Your task to perform on an android device: turn off sleep mode Image 0: 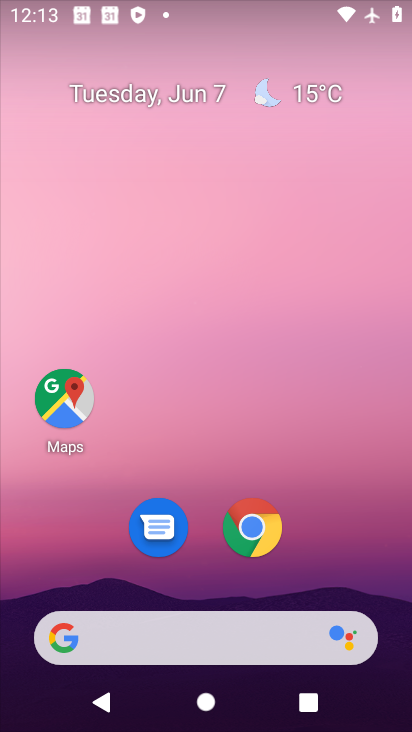
Step 0: drag from (263, 674) to (60, 98)
Your task to perform on an android device: turn off sleep mode Image 1: 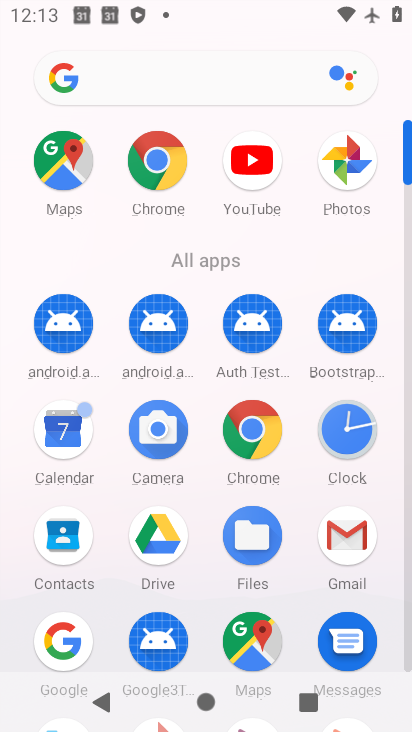
Step 1: drag from (189, 416) to (163, 267)
Your task to perform on an android device: turn off sleep mode Image 2: 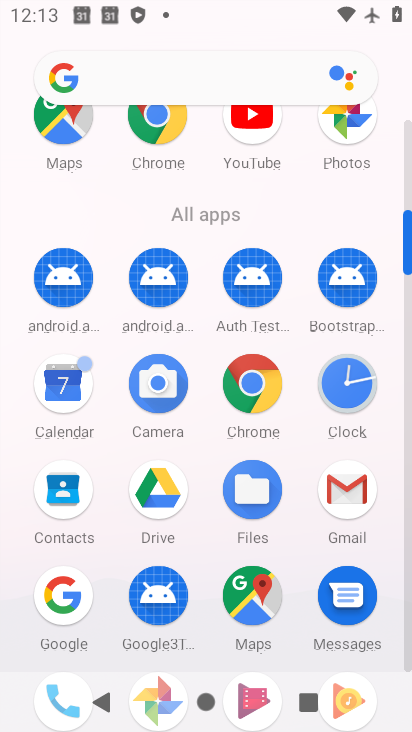
Step 2: drag from (237, 525) to (212, 294)
Your task to perform on an android device: turn off sleep mode Image 3: 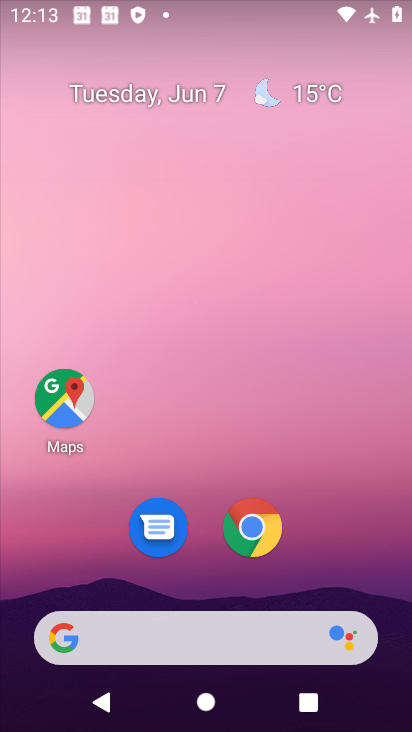
Step 3: click (165, 120)
Your task to perform on an android device: turn off sleep mode Image 4: 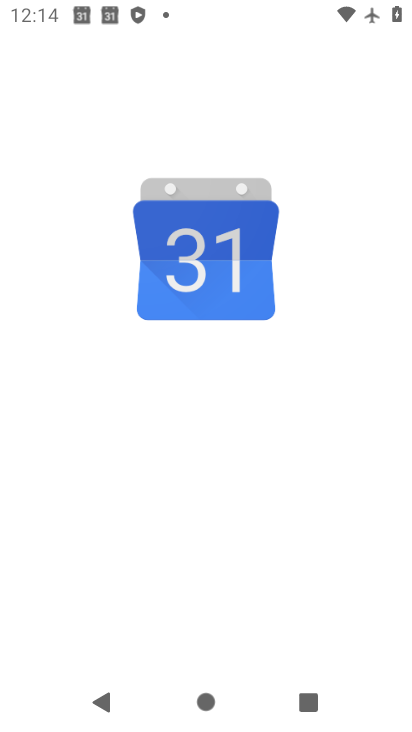
Step 4: click (236, 23)
Your task to perform on an android device: turn off sleep mode Image 5: 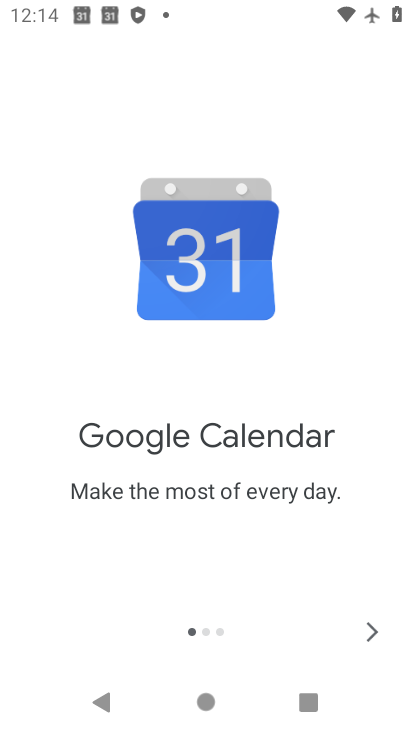
Step 5: press back button
Your task to perform on an android device: turn off sleep mode Image 6: 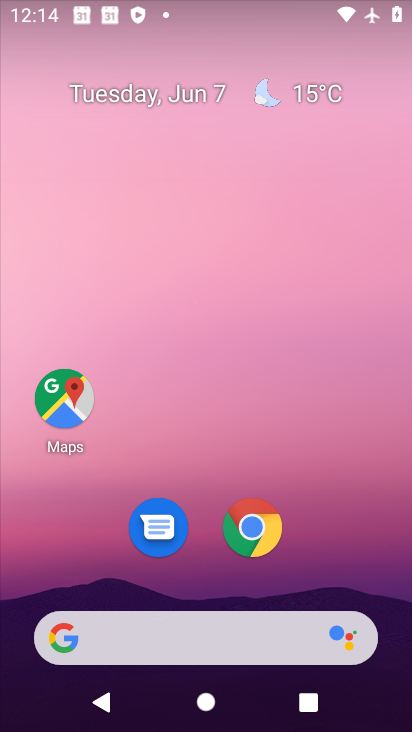
Step 6: drag from (269, 481) to (247, 74)
Your task to perform on an android device: turn off sleep mode Image 7: 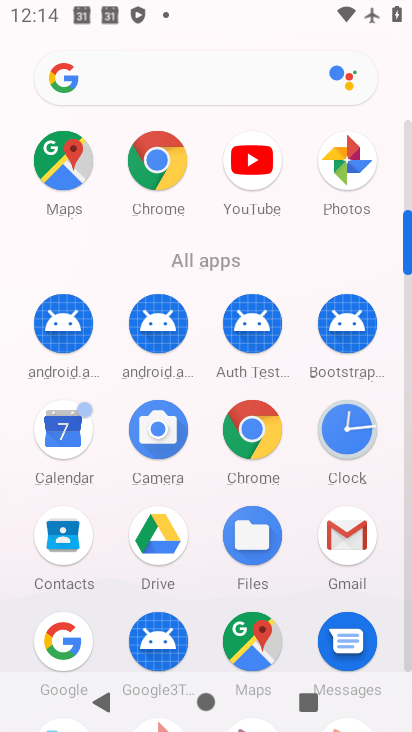
Step 7: drag from (229, 555) to (211, 207)
Your task to perform on an android device: turn off sleep mode Image 8: 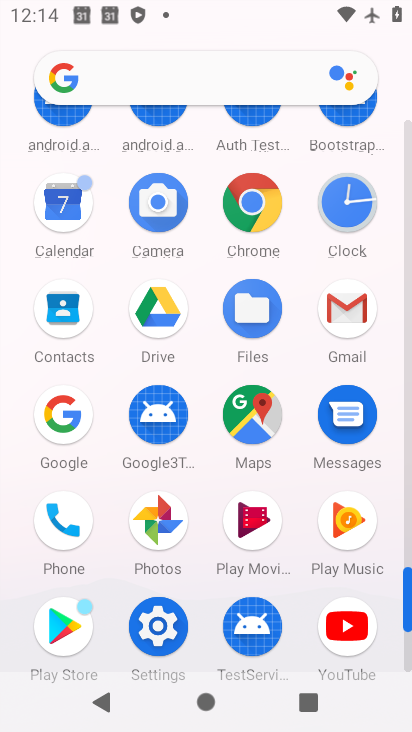
Step 8: drag from (234, 570) to (228, 171)
Your task to perform on an android device: turn off sleep mode Image 9: 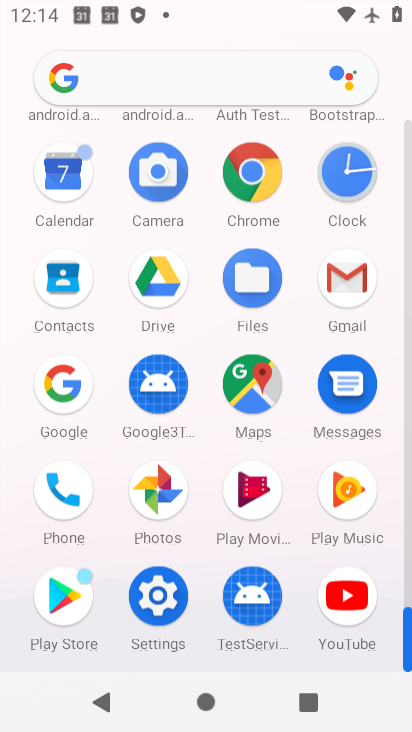
Step 9: drag from (227, 454) to (219, 205)
Your task to perform on an android device: turn off sleep mode Image 10: 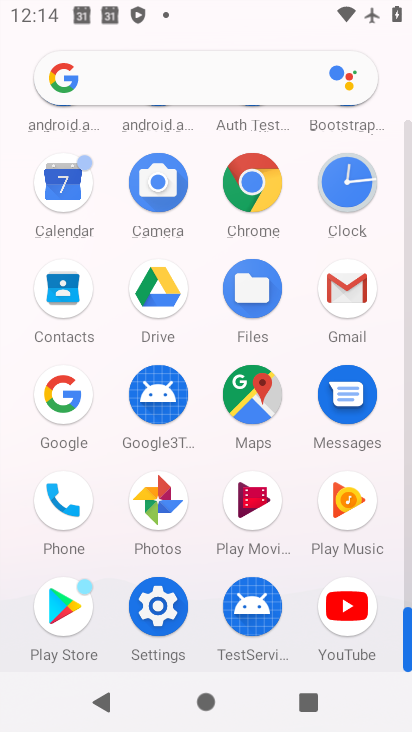
Step 10: click (153, 618)
Your task to perform on an android device: turn off sleep mode Image 11: 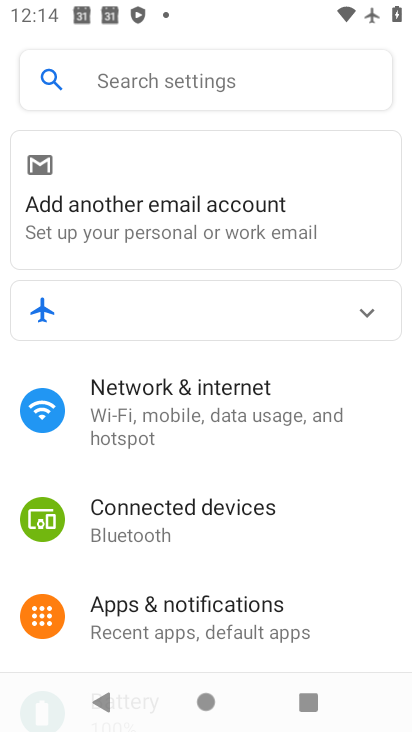
Step 11: drag from (211, 578) to (136, 303)
Your task to perform on an android device: turn off sleep mode Image 12: 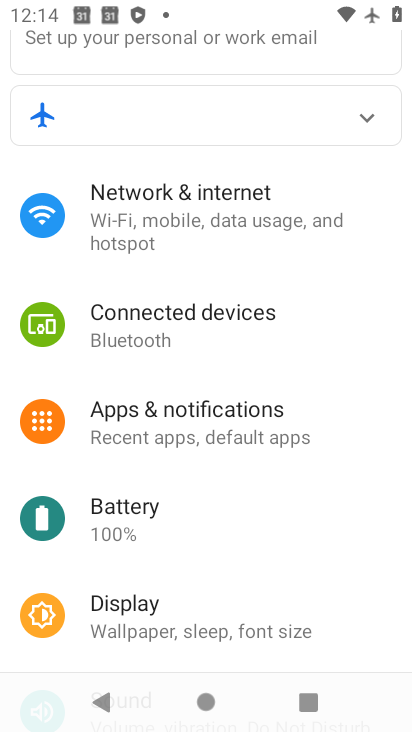
Step 12: click (126, 622)
Your task to perform on an android device: turn off sleep mode Image 13: 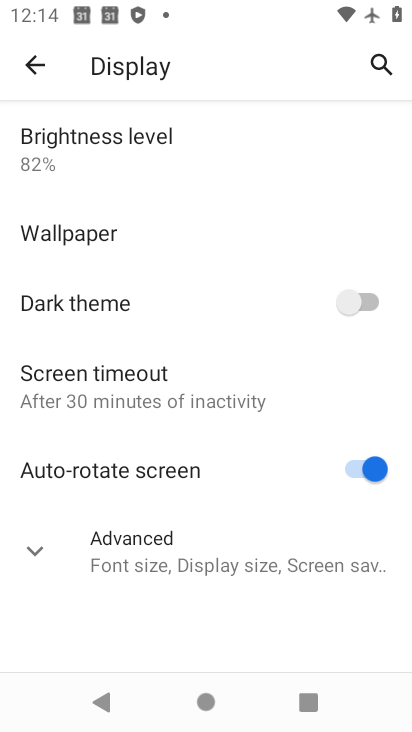
Step 13: click (87, 390)
Your task to perform on an android device: turn off sleep mode Image 14: 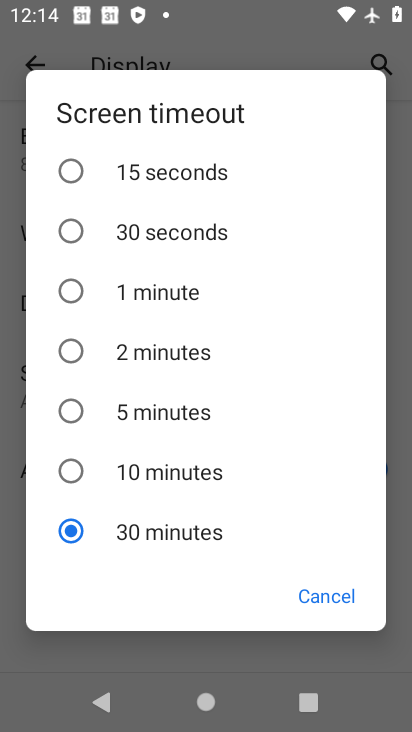
Step 14: task complete